Your task to perform on an android device: see creations saved in the google photos Image 0: 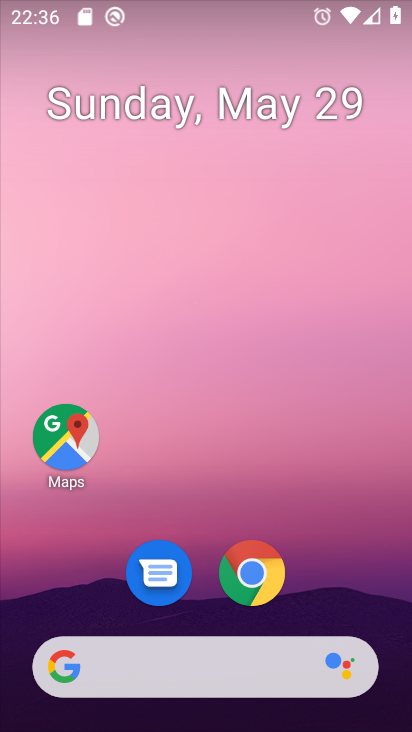
Step 0: drag from (245, 361) to (269, 4)
Your task to perform on an android device: see creations saved in the google photos Image 1: 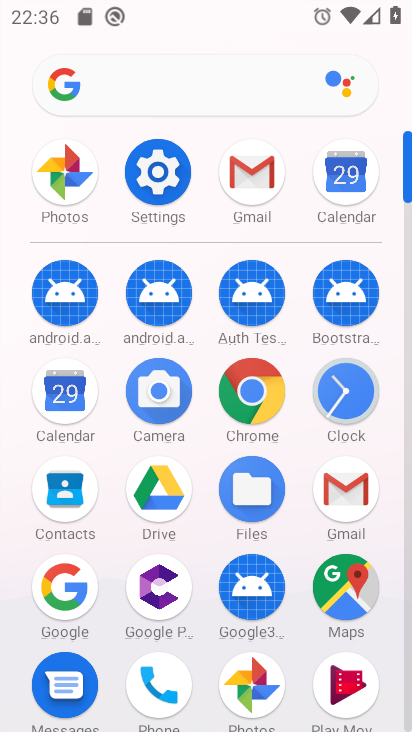
Step 1: click (55, 184)
Your task to perform on an android device: see creations saved in the google photos Image 2: 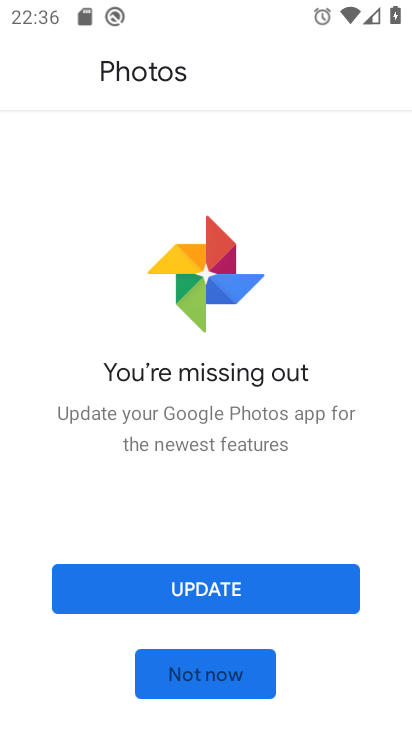
Step 2: click (227, 674)
Your task to perform on an android device: see creations saved in the google photos Image 3: 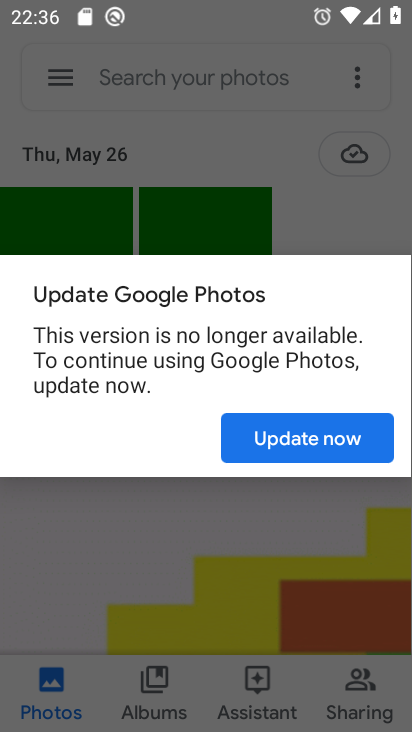
Step 3: click (333, 429)
Your task to perform on an android device: see creations saved in the google photos Image 4: 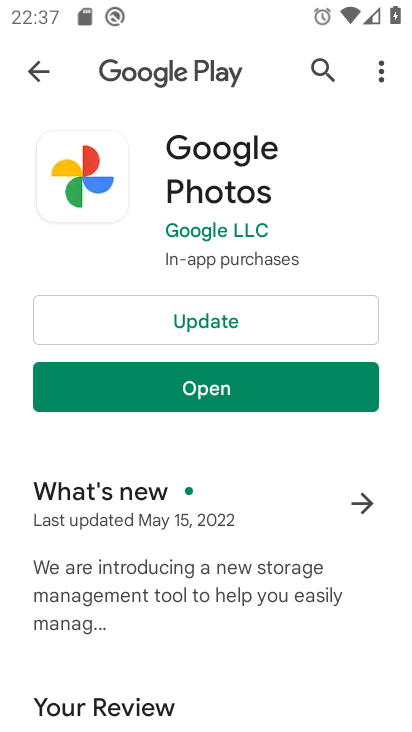
Step 4: click (272, 380)
Your task to perform on an android device: see creations saved in the google photos Image 5: 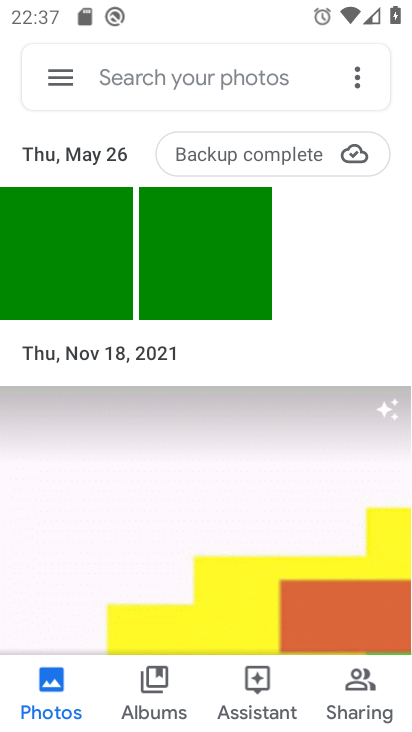
Step 5: click (245, 83)
Your task to perform on an android device: see creations saved in the google photos Image 6: 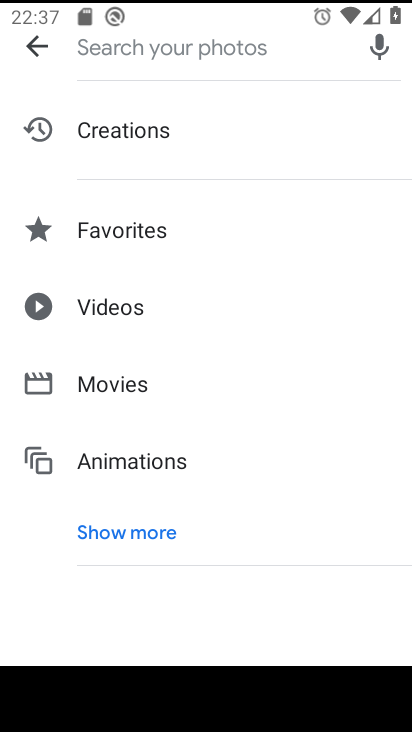
Step 6: click (119, 517)
Your task to perform on an android device: see creations saved in the google photos Image 7: 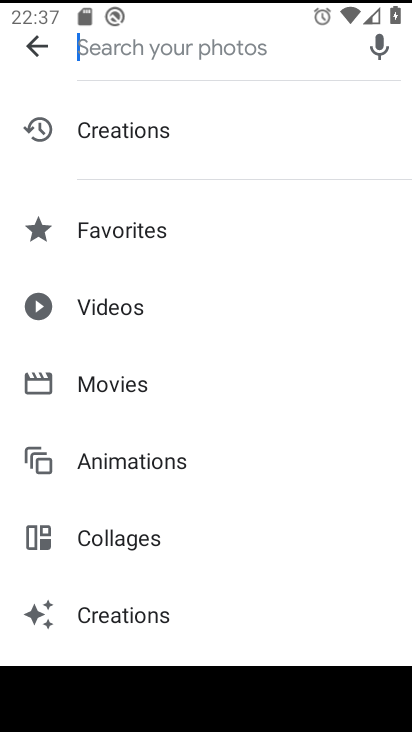
Step 7: click (94, 620)
Your task to perform on an android device: see creations saved in the google photos Image 8: 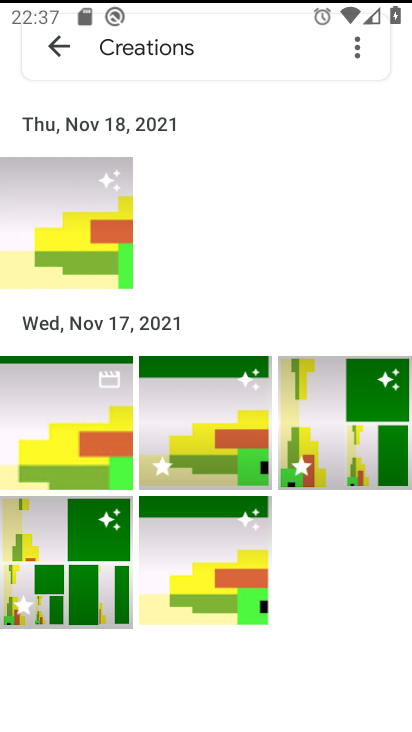
Step 8: task complete